Your task to perform on an android device: delete a single message in the gmail app Image 0: 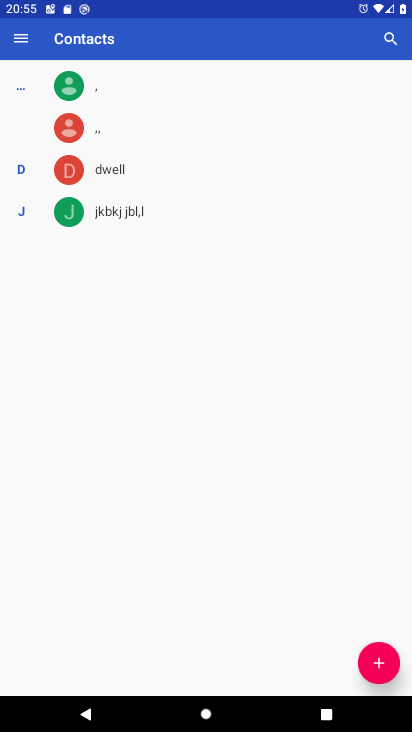
Step 0: press home button
Your task to perform on an android device: delete a single message in the gmail app Image 1: 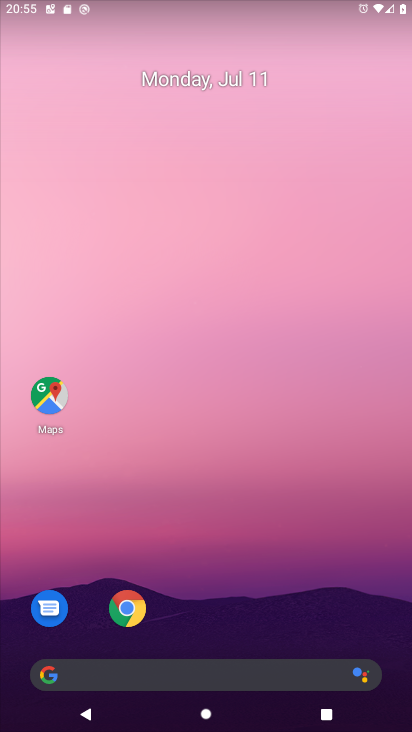
Step 1: drag from (257, 603) to (171, 1)
Your task to perform on an android device: delete a single message in the gmail app Image 2: 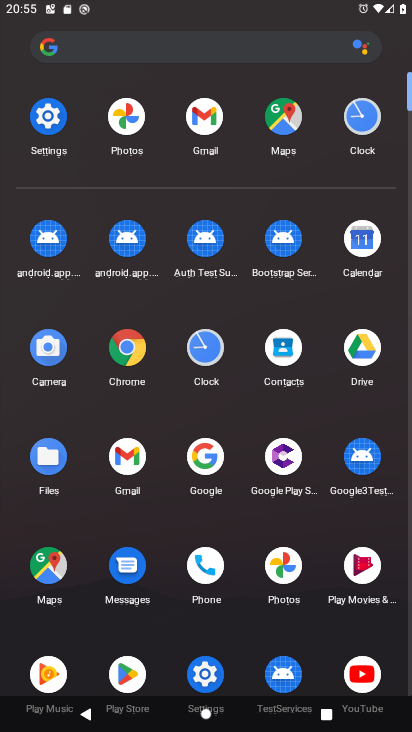
Step 2: click (203, 111)
Your task to perform on an android device: delete a single message in the gmail app Image 3: 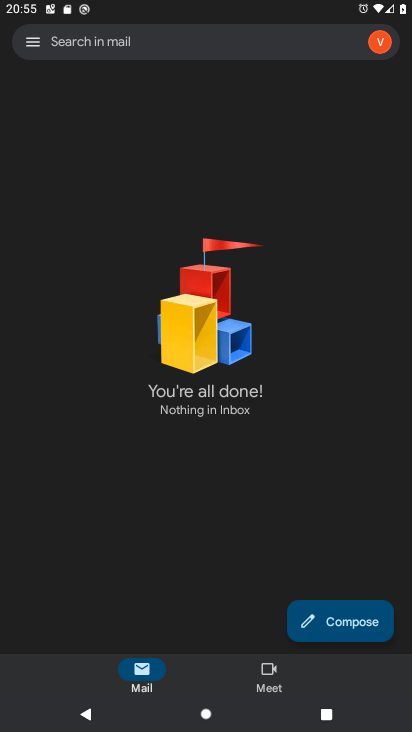
Step 3: click (21, 37)
Your task to perform on an android device: delete a single message in the gmail app Image 4: 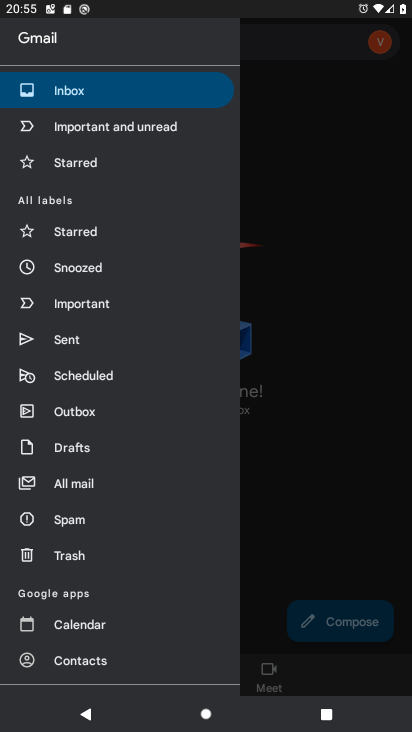
Step 4: drag from (93, 598) to (93, 248)
Your task to perform on an android device: delete a single message in the gmail app Image 5: 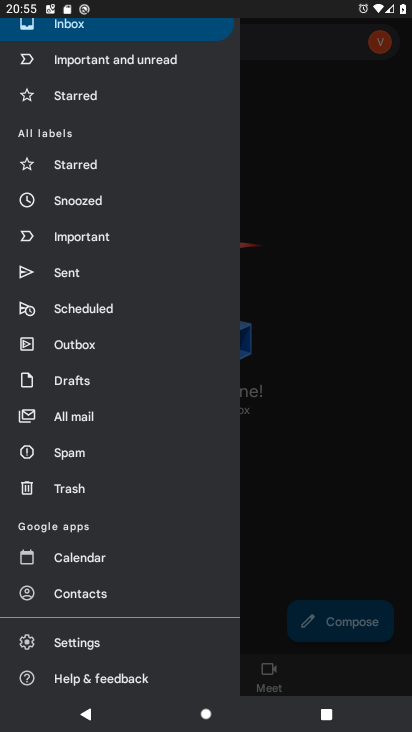
Step 5: drag from (81, 163) to (131, 370)
Your task to perform on an android device: delete a single message in the gmail app Image 6: 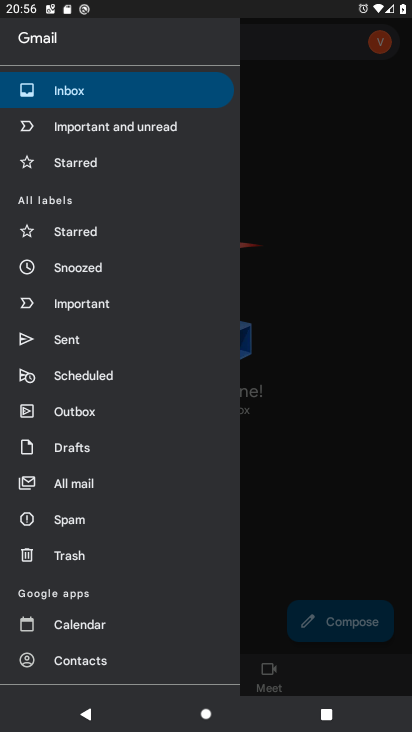
Step 6: click (119, 489)
Your task to perform on an android device: delete a single message in the gmail app Image 7: 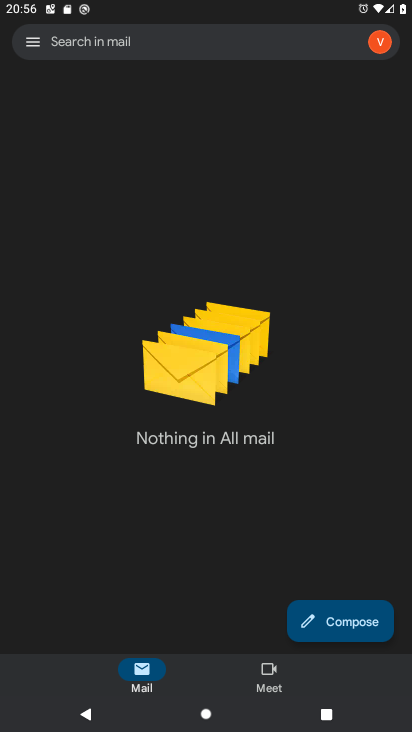
Step 7: task complete